Your task to perform on an android device: turn on javascript in the chrome app Image 0: 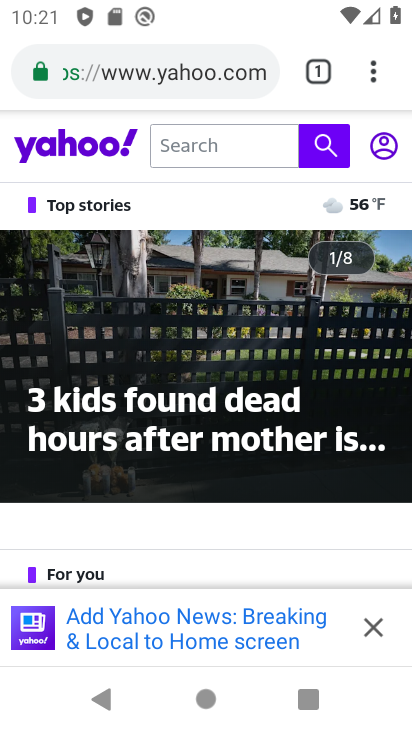
Step 0: press home button
Your task to perform on an android device: turn on javascript in the chrome app Image 1: 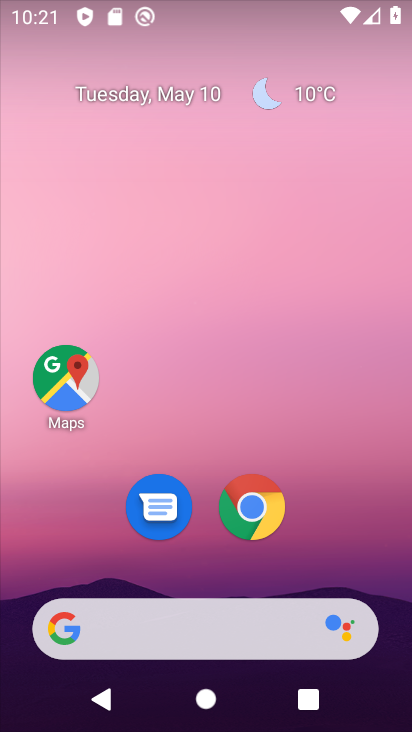
Step 1: click (243, 509)
Your task to perform on an android device: turn on javascript in the chrome app Image 2: 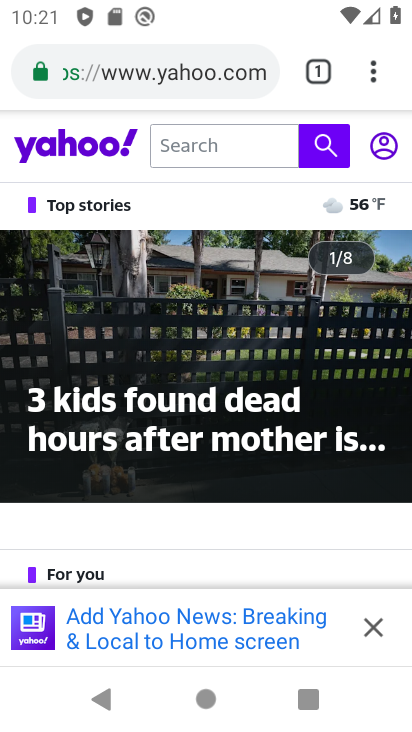
Step 2: click (374, 73)
Your task to perform on an android device: turn on javascript in the chrome app Image 3: 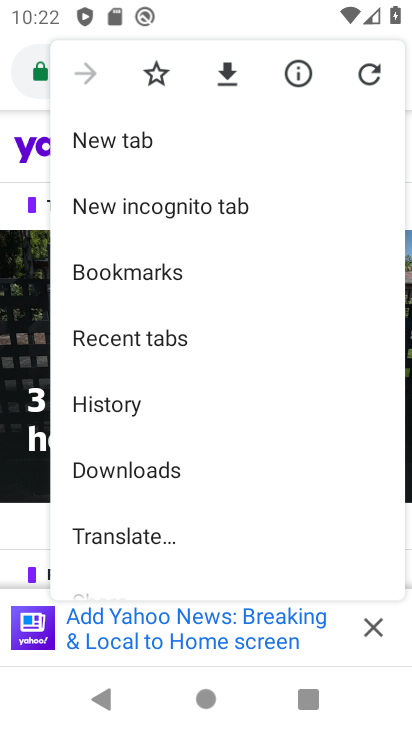
Step 3: drag from (156, 556) to (175, 187)
Your task to perform on an android device: turn on javascript in the chrome app Image 4: 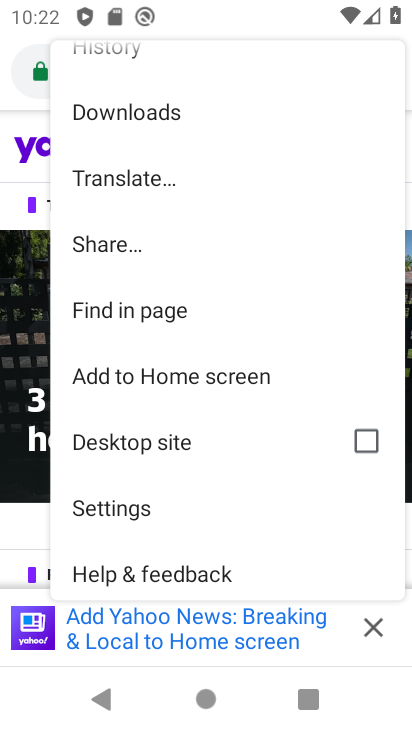
Step 4: click (129, 505)
Your task to perform on an android device: turn on javascript in the chrome app Image 5: 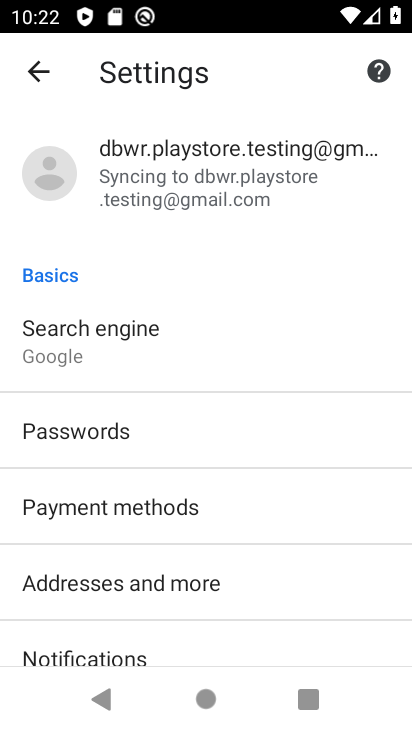
Step 5: drag from (143, 655) to (146, 285)
Your task to perform on an android device: turn on javascript in the chrome app Image 6: 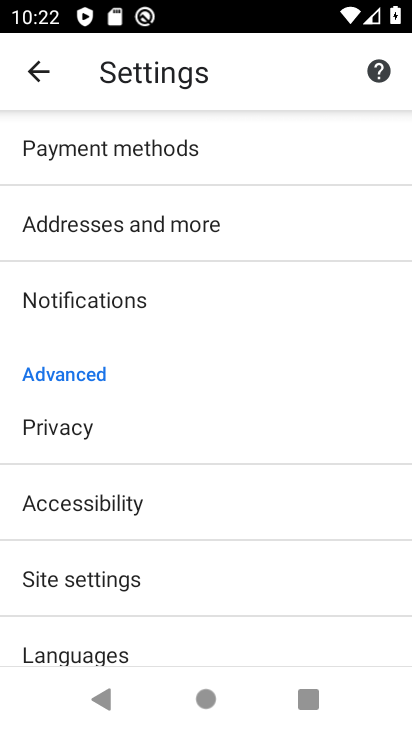
Step 6: click (97, 578)
Your task to perform on an android device: turn on javascript in the chrome app Image 7: 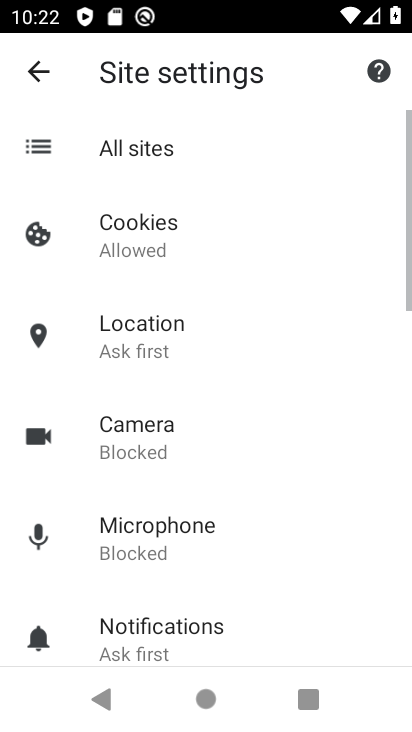
Step 7: drag from (204, 642) to (218, 246)
Your task to perform on an android device: turn on javascript in the chrome app Image 8: 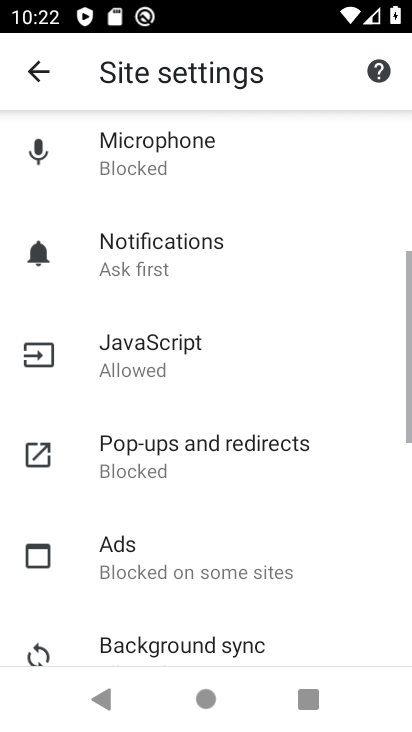
Step 8: click (138, 352)
Your task to perform on an android device: turn on javascript in the chrome app Image 9: 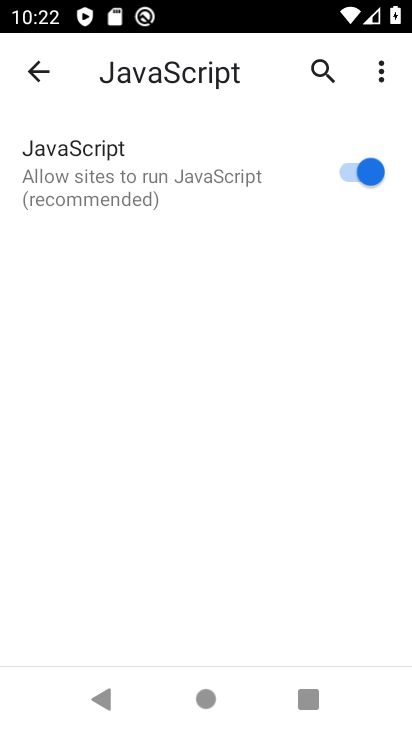
Step 9: task complete